Your task to perform on an android device: Open CNN.com Image 0: 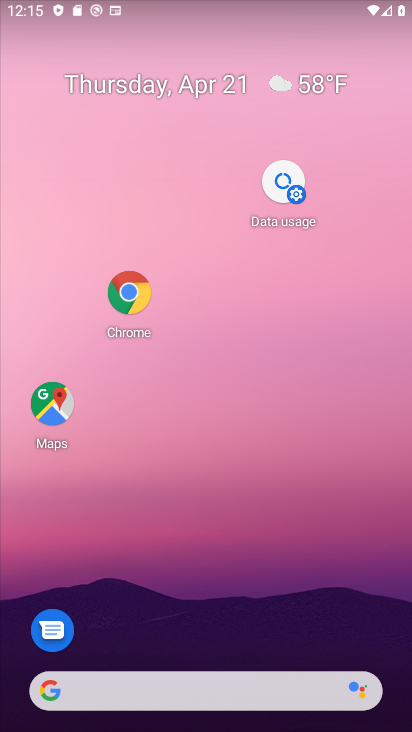
Step 0: drag from (199, 667) to (193, 222)
Your task to perform on an android device: Open CNN.com Image 1: 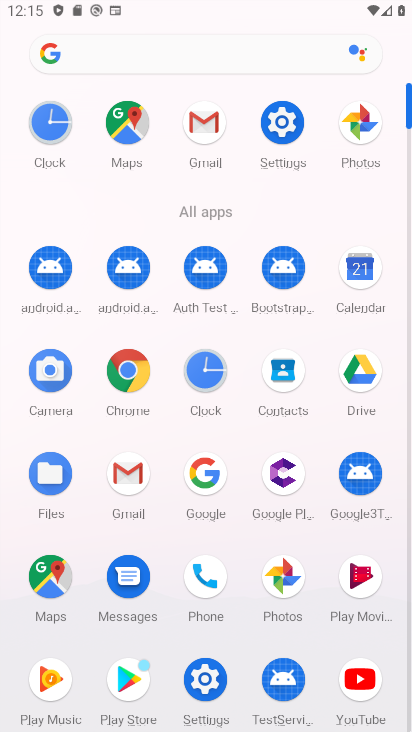
Step 1: click (128, 364)
Your task to perform on an android device: Open CNN.com Image 2: 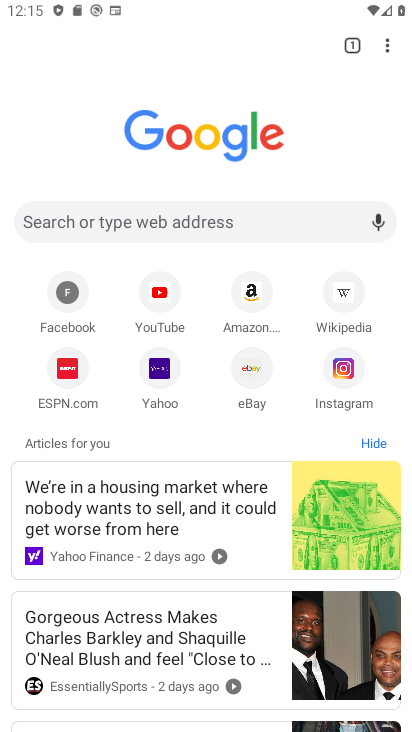
Step 2: click (117, 220)
Your task to perform on an android device: Open CNN.com Image 3: 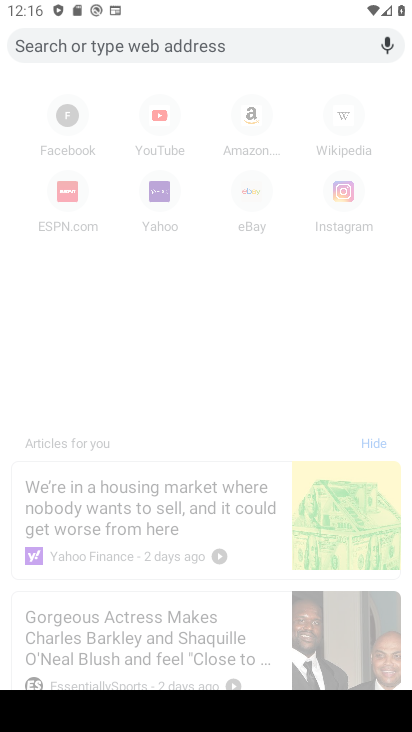
Step 3: type "CNN.com"
Your task to perform on an android device: Open CNN.com Image 4: 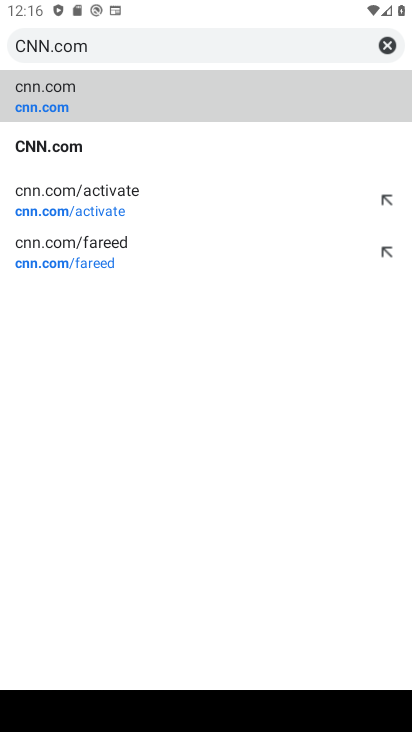
Step 4: click (56, 147)
Your task to perform on an android device: Open CNN.com Image 5: 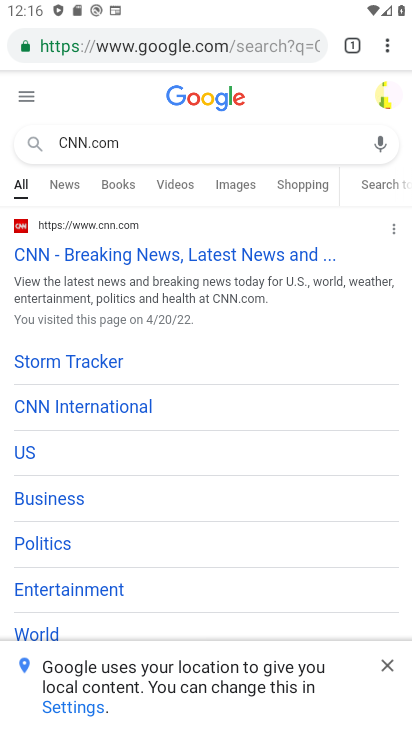
Step 5: click (97, 262)
Your task to perform on an android device: Open CNN.com Image 6: 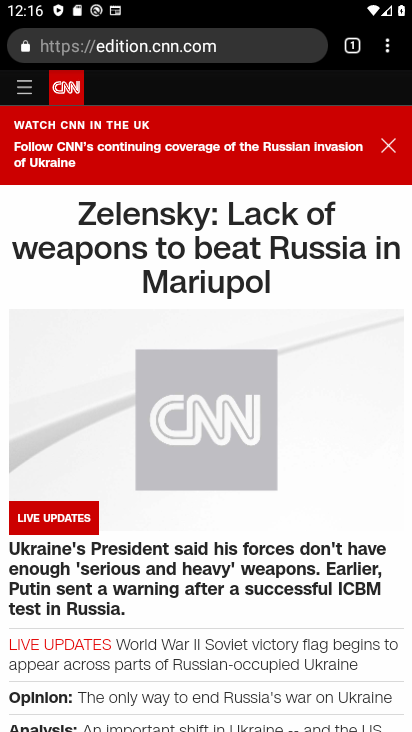
Step 6: task complete